Your task to perform on an android device: Add "dell xps" to the cart on ebay, then select checkout. Image 0: 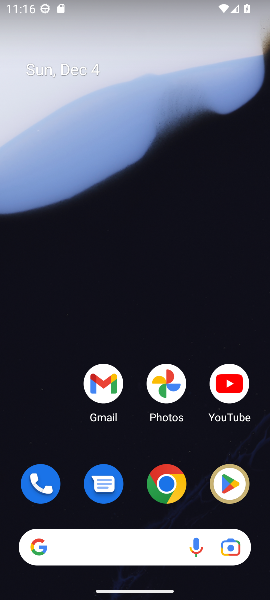
Step 0: click (162, 482)
Your task to perform on an android device: Add "dell xps" to the cart on ebay, then select checkout. Image 1: 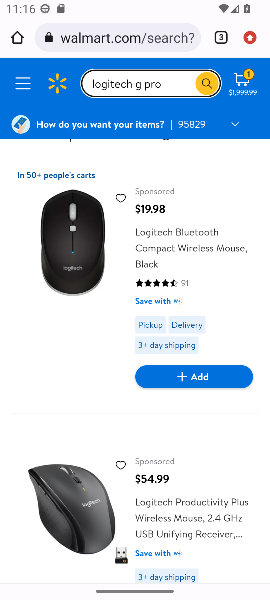
Step 1: click (101, 36)
Your task to perform on an android device: Add "dell xps" to the cart on ebay, then select checkout. Image 2: 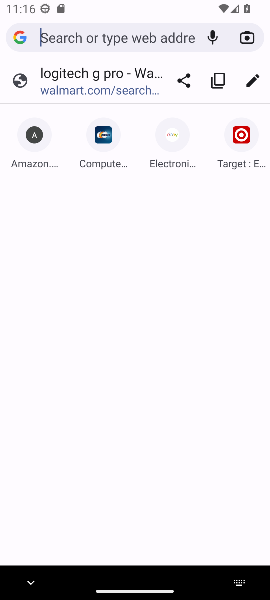
Step 2: type "ebay.com"
Your task to perform on an android device: Add "dell xps" to the cart on ebay, then select checkout. Image 3: 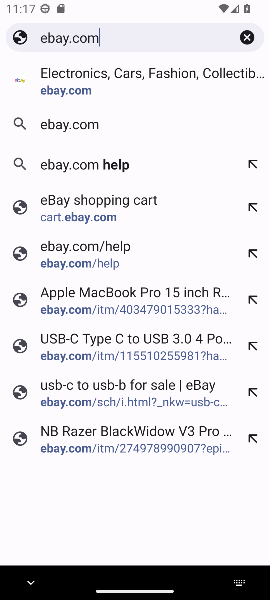
Step 3: click (63, 84)
Your task to perform on an android device: Add "dell xps" to the cart on ebay, then select checkout. Image 4: 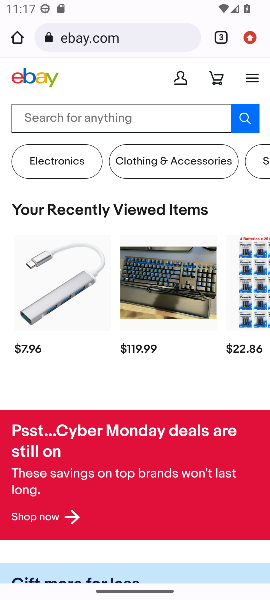
Step 4: click (51, 124)
Your task to perform on an android device: Add "dell xps" to the cart on ebay, then select checkout. Image 5: 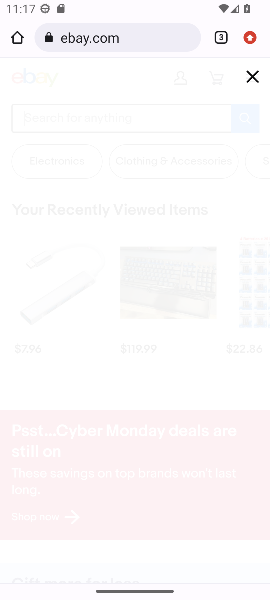
Step 5: click (51, 124)
Your task to perform on an android device: Add "dell xps" to the cart on ebay, then select checkout. Image 6: 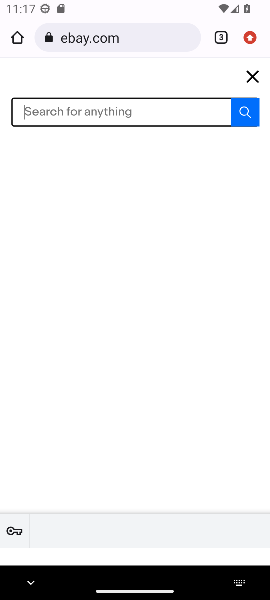
Step 6: type "dell xps"
Your task to perform on an android device: Add "dell xps" to the cart on ebay, then select checkout. Image 7: 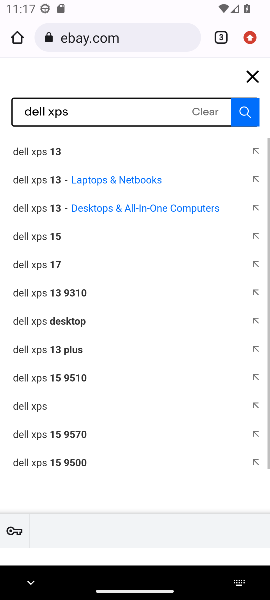
Step 7: click (15, 408)
Your task to perform on an android device: Add "dell xps" to the cart on ebay, then select checkout. Image 8: 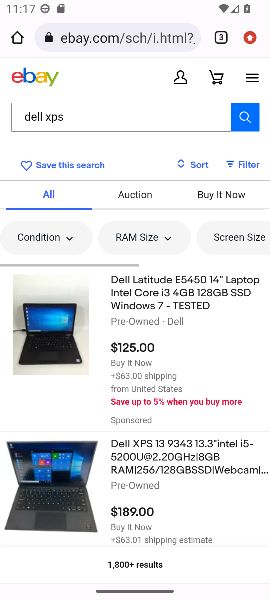
Step 8: click (163, 463)
Your task to perform on an android device: Add "dell xps" to the cart on ebay, then select checkout. Image 9: 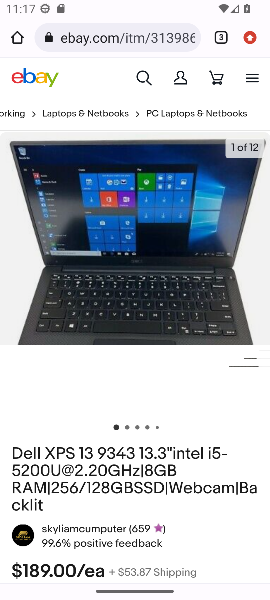
Step 9: drag from (149, 484) to (122, 239)
Your task to perform on an android device: Add "dell xps" to the cart on ebay, then select checkout. Image 10: 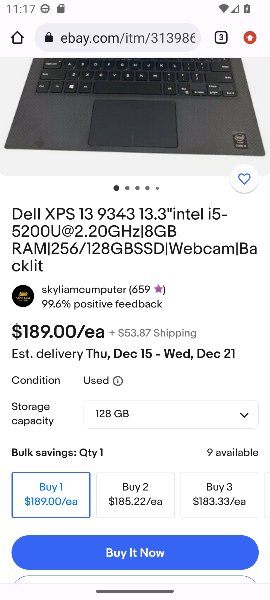
Step 10: drag from (107, 499) to (107, 296)
Your task to perform on an android device: Add "dell xps" to the cart on ebay, then select checkout. Image 11: 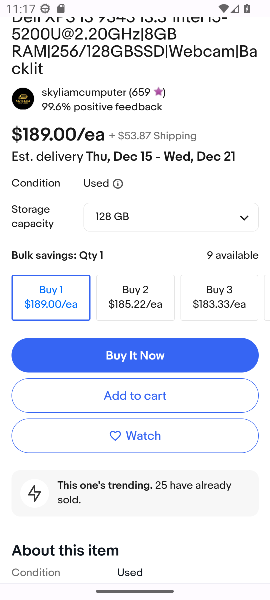
Step 11: click (112, 399)
Your task to perform on an android device: Add "dell xps" to the cart on ebay, then select checkout. Image 12: 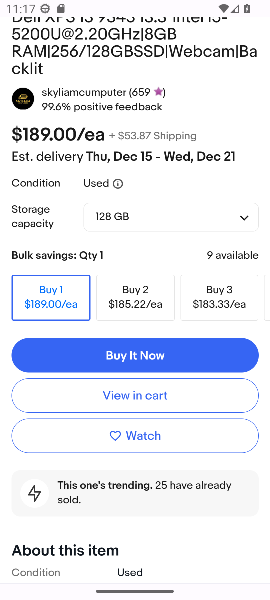
Step 12: click (112, 399)
Your task to perform on an android device: Add "dell xps" to the cart on ebay, then select checkout. Image 13: 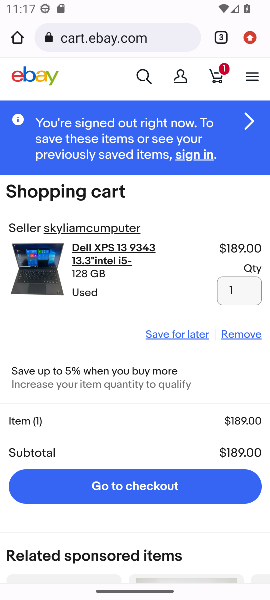
Step 13: click (103, 494)
Your task to perform on an android device: Add "dell xps" to the cart on ebay, then select checkout. Image 14: 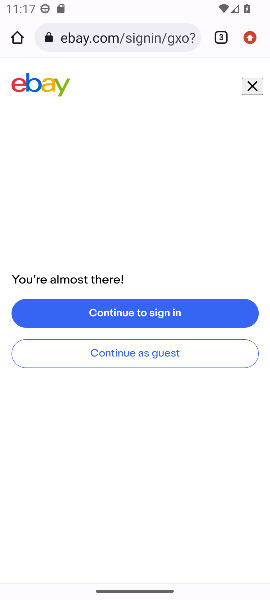
Step 14: task complete